Your task to perform on an android device: visit the assistant section in the google photos Image 0: 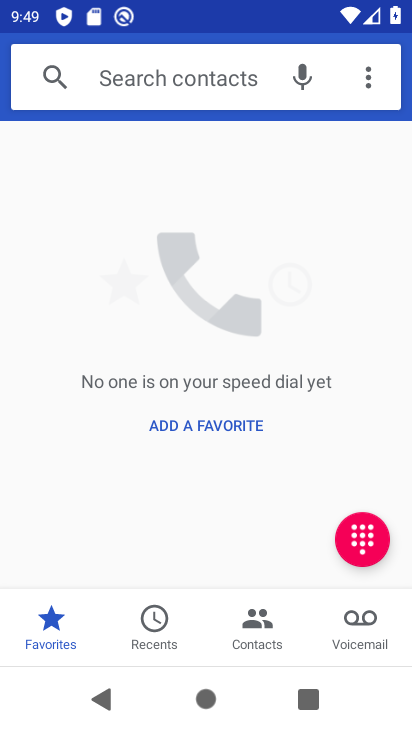
Step 0: press home button
Your task to perform on an android device: visit the assistant section in the google photos Image 1: 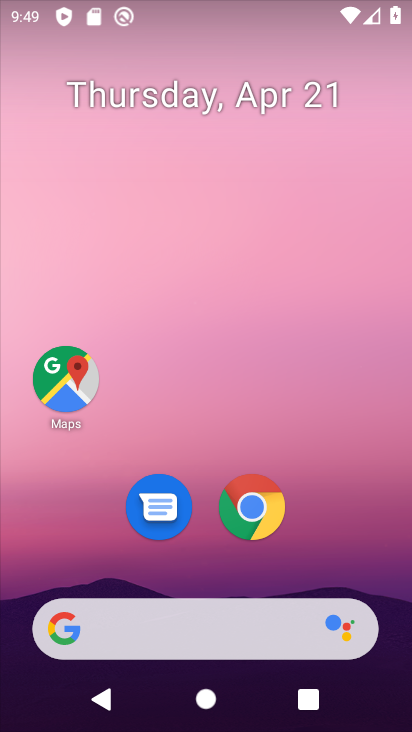
Step 1: drag from (174, 597) to (187, 185)
Your task to perform on an android device: visit the assistant section in the google photos Image 2: 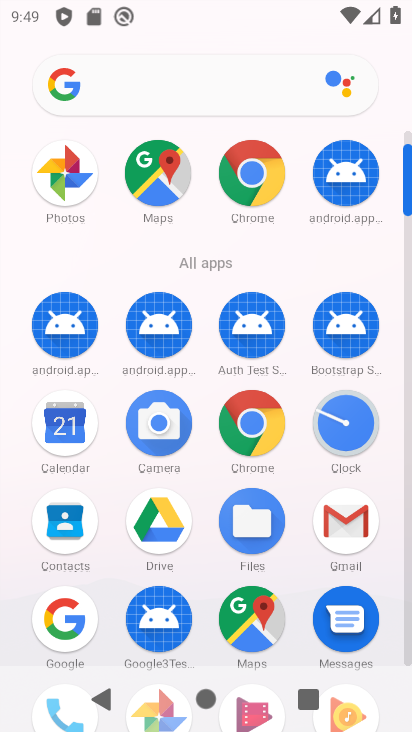
Step 2: click (65, 174)
Your task to perform on an android device: visit the assistant section in the google photos Image 3: 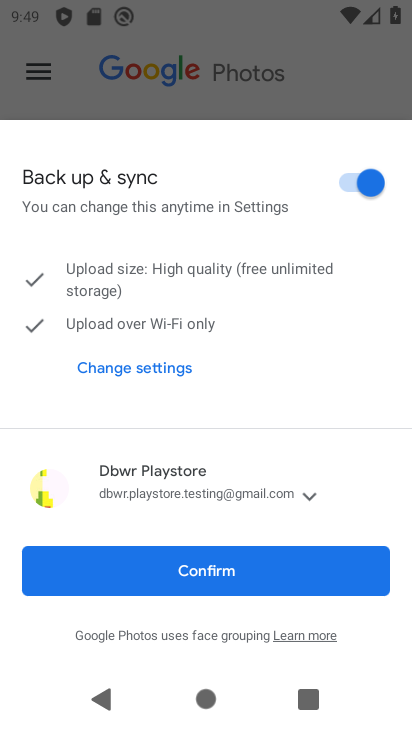
Step 3: click (207, 569)
Your task to perform on an android device: visit the assistant section in the google photos Image 4: 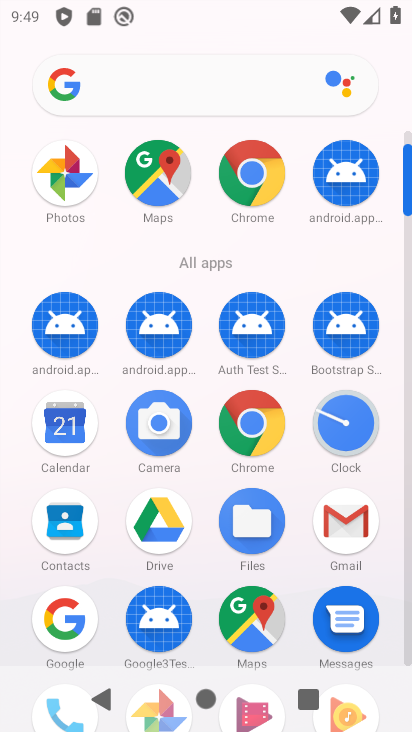
Step 4: click (59, 173)
Your task to perform on an android device: visit the assistant section in the google photos Image 5: 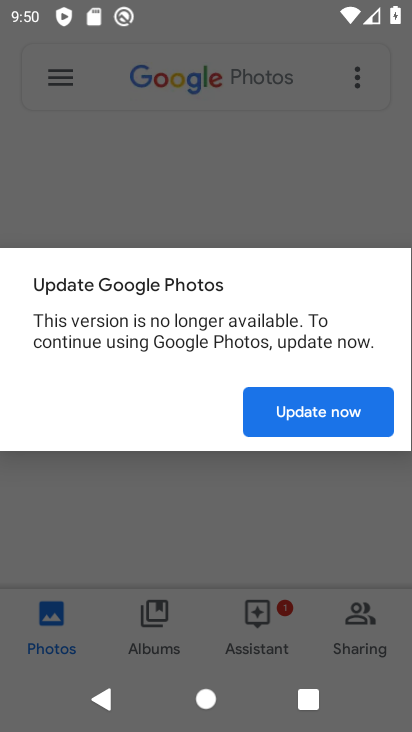
Step 5: click (307, 414)
Your task to perform on an android device: visit the assistant section in the google photos Image 6: 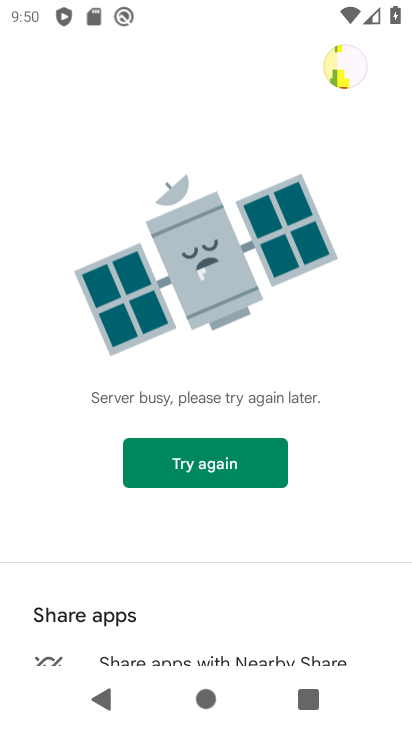
Step 6: click (186, 465)
Your task to perform on an android device: visit the assistant section in the google photos Image 7: 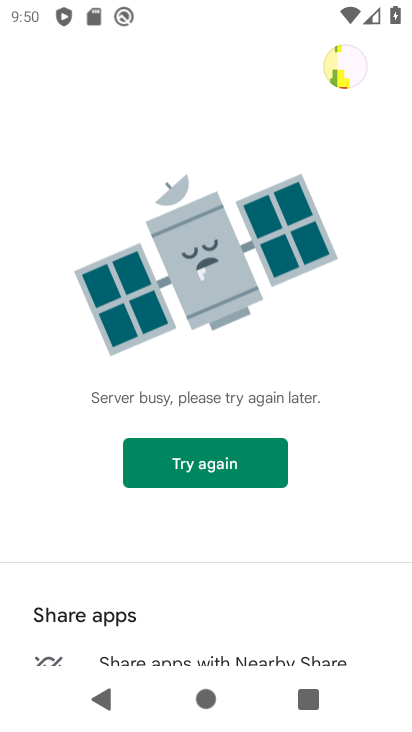
Step 7: task complete